Your task to perform on an android device: turn on showing notifications on the lock screen Image 0: 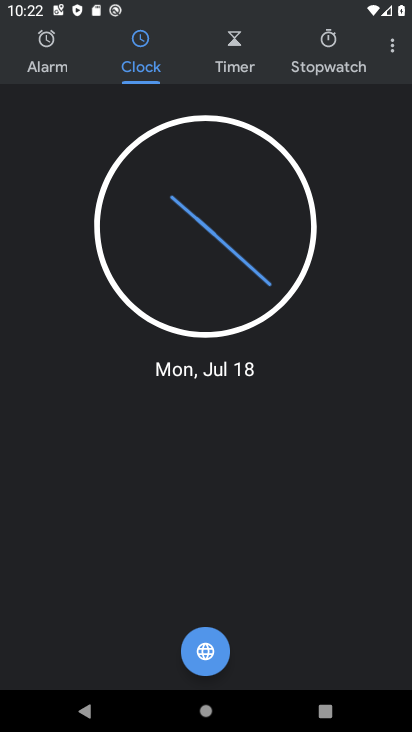
Step 0: press home button
Your task to perform on an android device: turn on showing notifications on the lock screen Image 1: 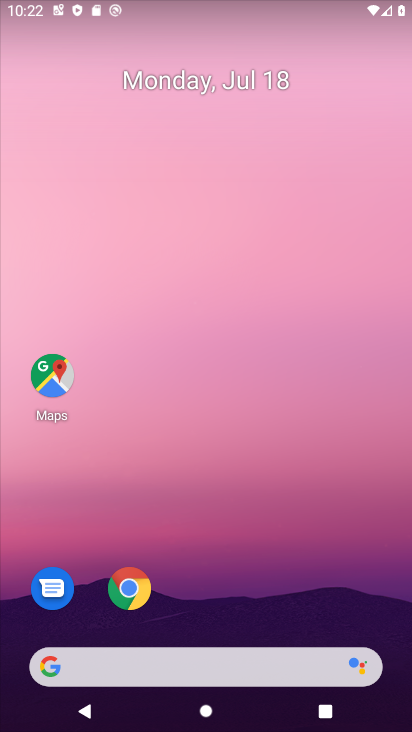
Step 1: drag from (222, 717) to (189, 154)
Your task to perform on an android device: turn on showing notifications on the lock screen Image 2: 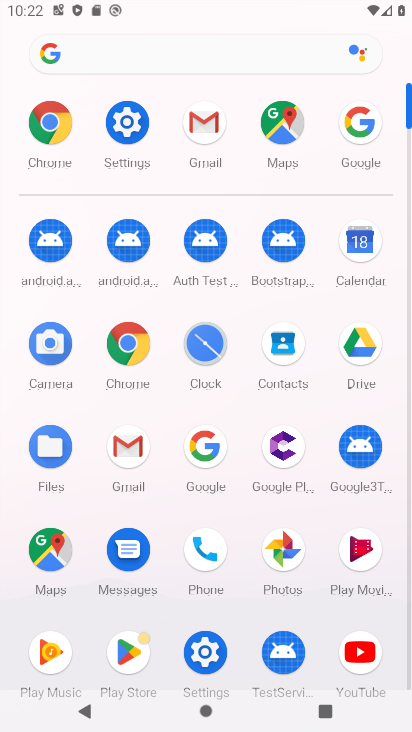
Step 2: click (121, 114)
Your task to perform on an android device: turn on showing notifications on the lock screen Image 3: 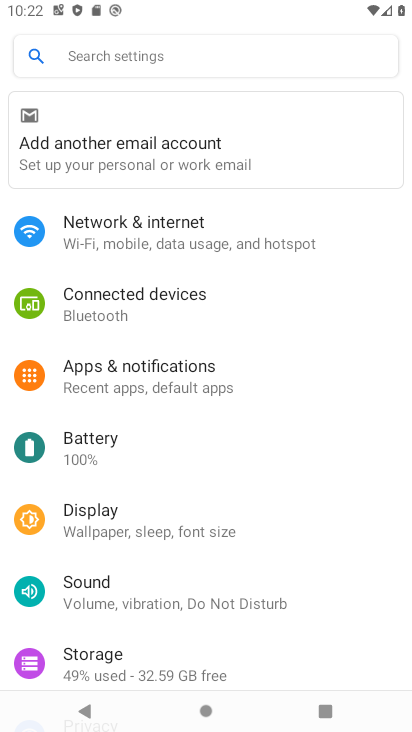
Step 3: click (101, 375)
Your task to perform on an android device: turn on showing notifications on the lock screen Image 4: 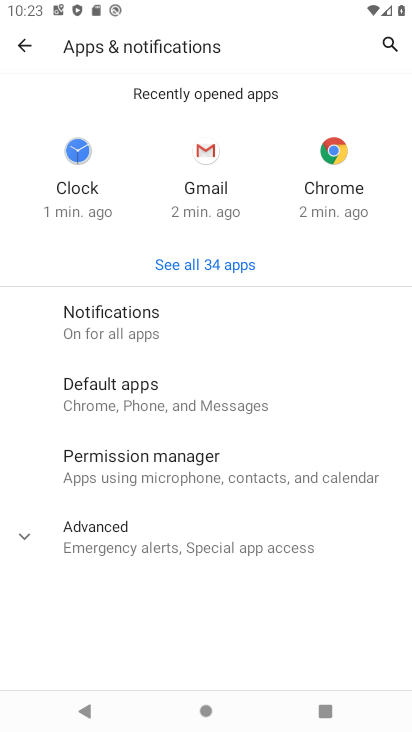
Step 4: click (101, 312)
Your task to perform on an android device: turn on showing notifications on the lock screen Image 5: 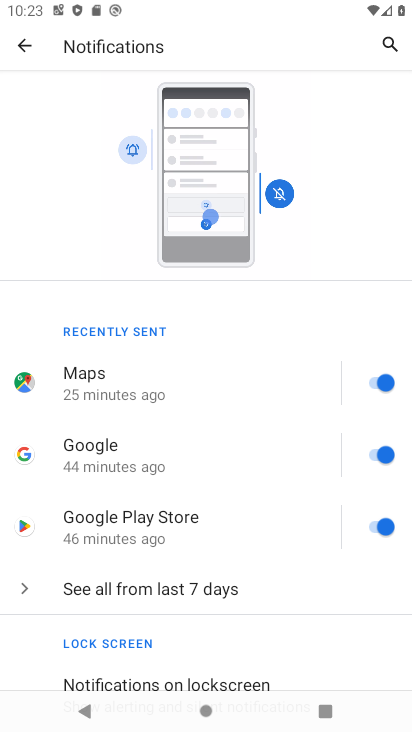
Step 5: task complete